Your task to perform on an android device: turn off data saver in the chrome app Image 0: 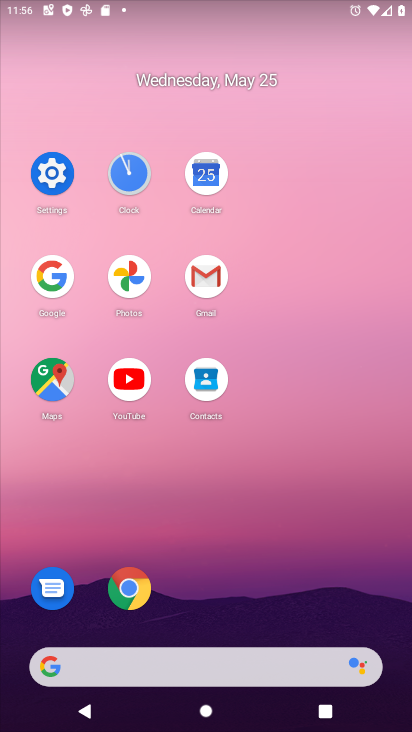
Step 0: click (144, 583)
Your task to perform on an android device: turn off data saver in the chrome app Image 1: 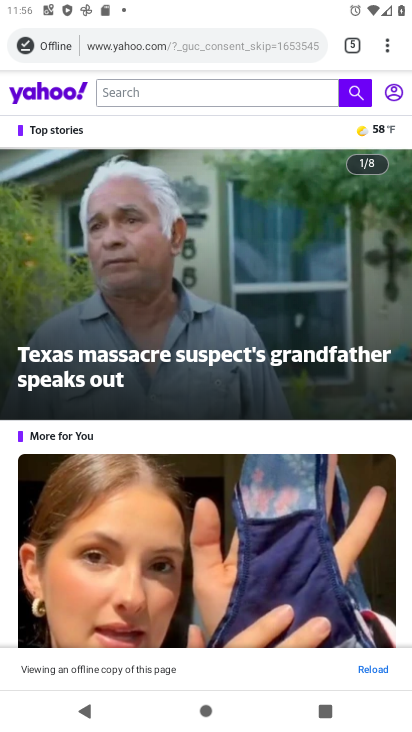
Step 1: click (390, 35)
Your task to perform on an android device: turn off data saver in the chrome app Image 2: 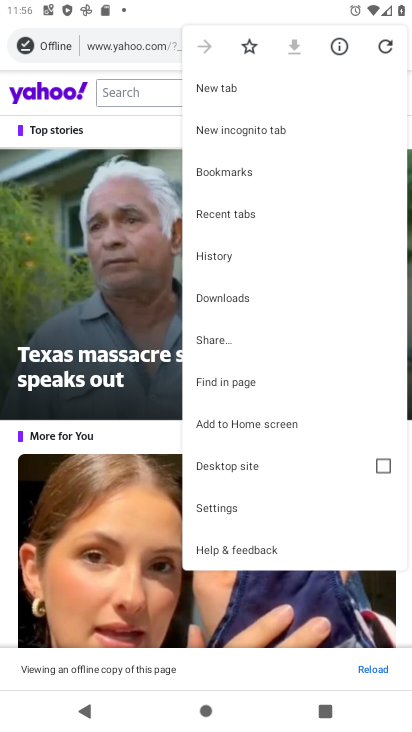
Step 2: click (245, 500)
Your task to perform on an android device: turn off data saver in the chrome app Image 3: 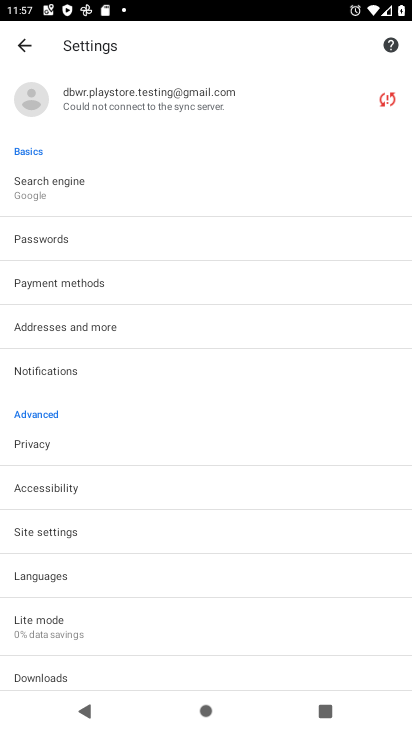
Step 3: drag from (175, 612) to (142, 342)
Your task to perform on an android device: turn off data saver in the chrome app Image 4: 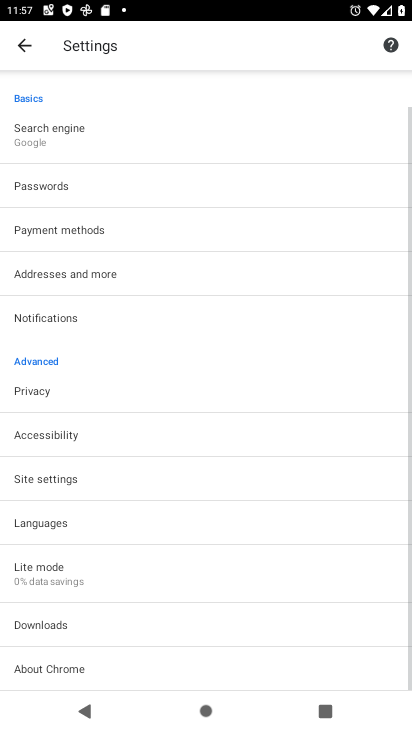
Step 4: click (182, 590)
Your task to perform on an android device: turn off data saver in the chrome app Image 5: 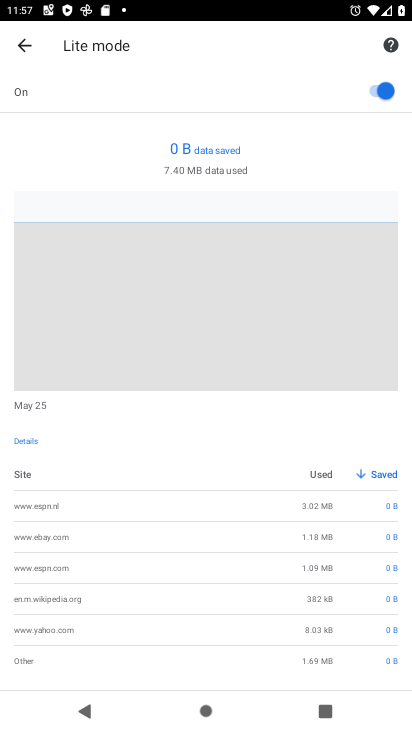
Step 5: click (369, 99)
Your task to perform on an android device: turn off data saver in the chrome app Image 6: 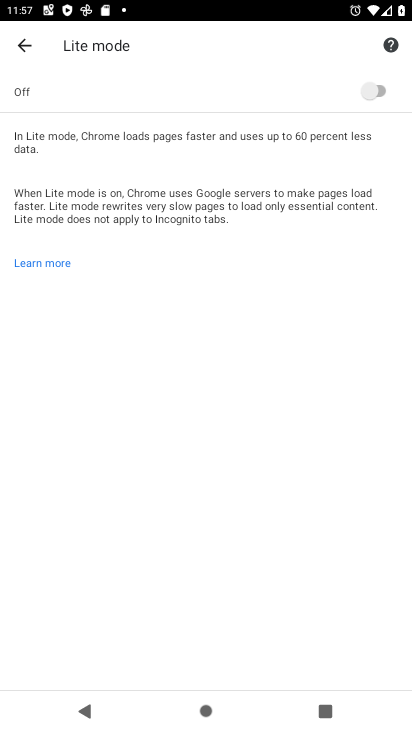
Step 6: task complete